Your task to perform on an android device: Go to privacy settings Image 0: 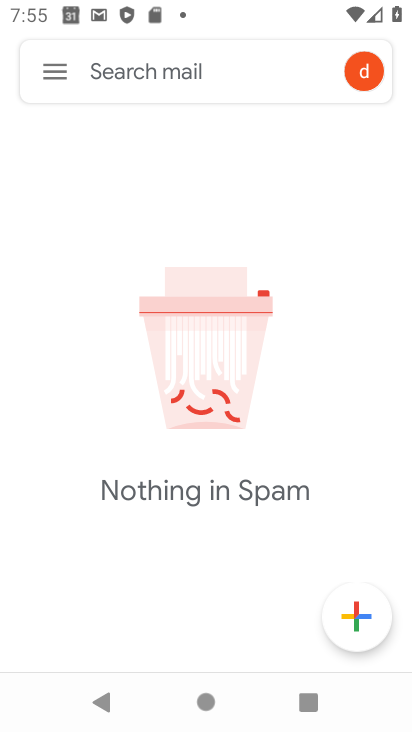
Step 0: press home button
Your task to perform on an android device: Go to privacy settings Image 1: 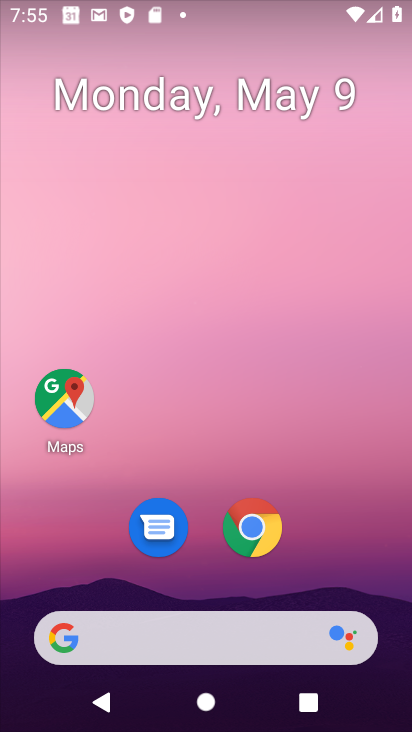
Step 1: drag from (296, 534) to (310, 273)
Your task to perform on an android device: Go to privacy settings Image 2: 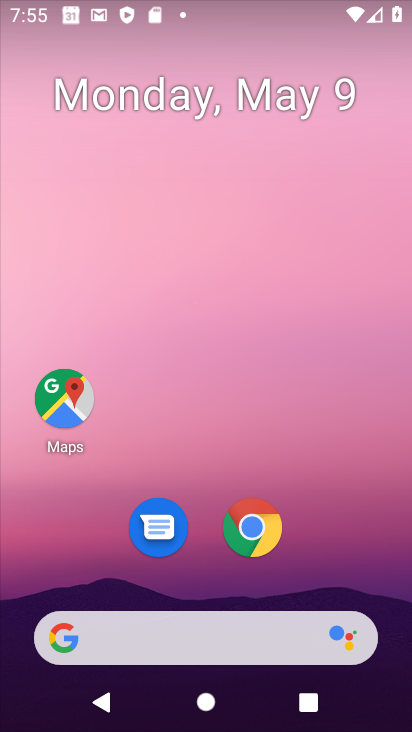
Step 2: drag from (240, 594) to (240, 193)
Your task to perform on an android device: Go to privacy settings Image 3: 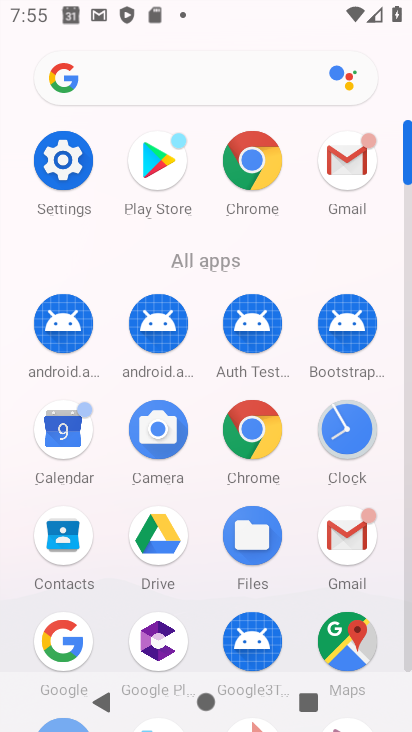
Step 3: click (82, 179)
Your task to perform on an android device: Go to privacy settings Image 4: 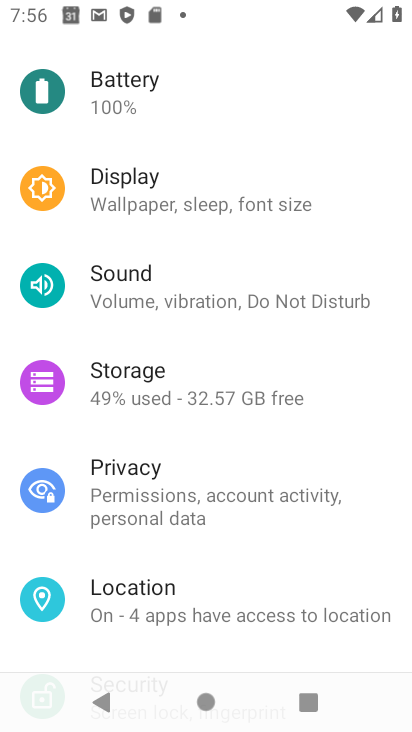
Step 4: drag from (171, 554) to (169, 350)
Your task to perform on an android device: Go to privacy settings Image 5: 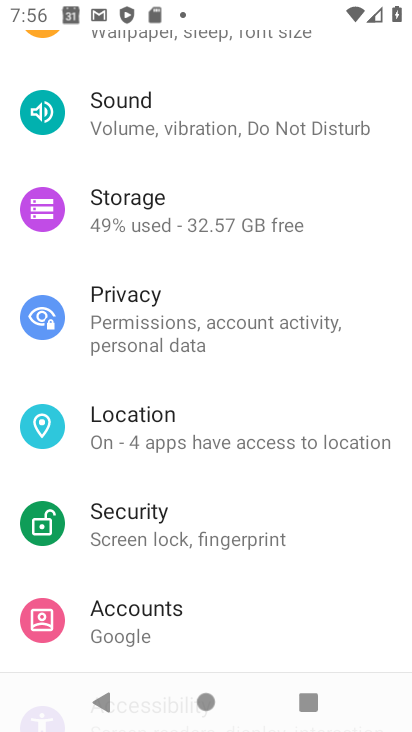
Step 5: click (201, 338)
Your task to perform on an android device: Go to privacy settings Image 6: 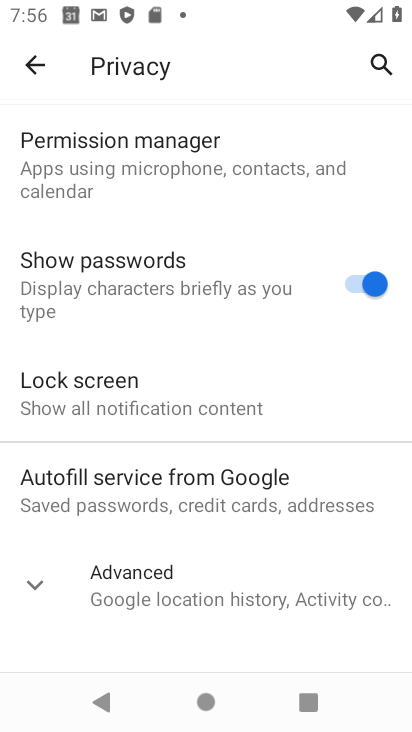
Step 6: task complete